Your task to perform on an android device: toggle wifi Image 0: 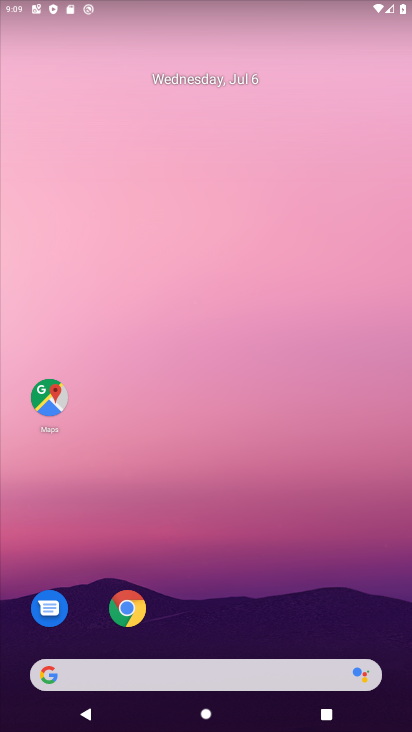
Step 0: drag from (233, 556) to (193, 238)
Your task to perform on an android device: toggle wifi Image 1: 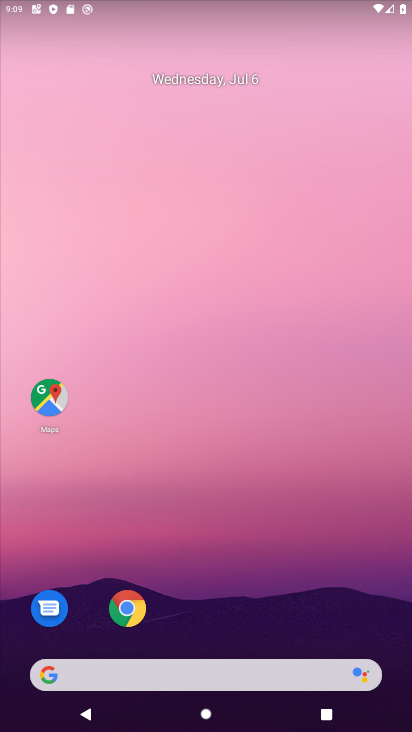
Step 1: drag from (220, 621) to (168, 236)
Your task to perform on an android device: toggle wifi Image 2: 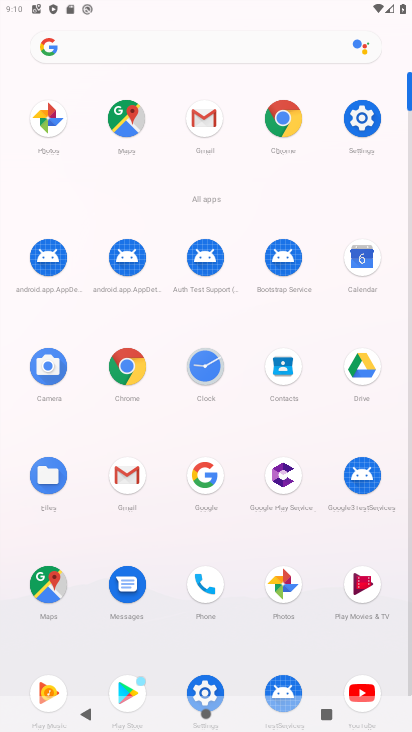
Step 2: click (359, 116)
Your task to perform on an android device: toggle wifi Image 3: 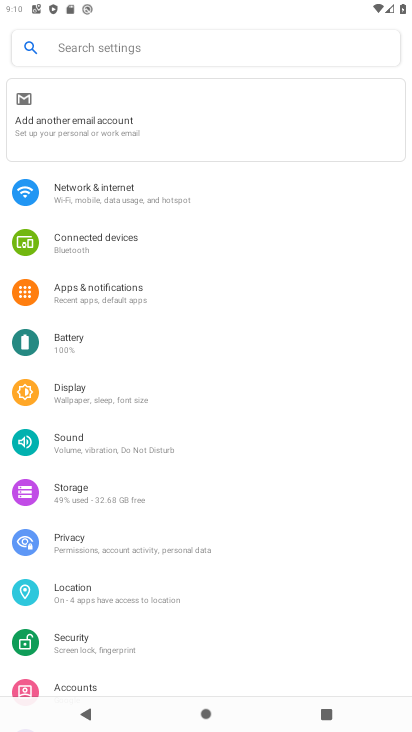
Step 3: click (112, 187)
Your task to perform on an android device: toggle wifi Image 4: 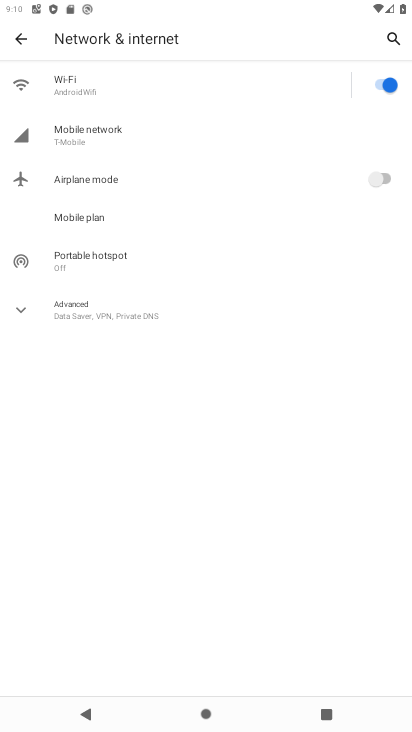
Step 4: click (380, 78)
Your task to perform on an android device: toggle wifi Image 5: 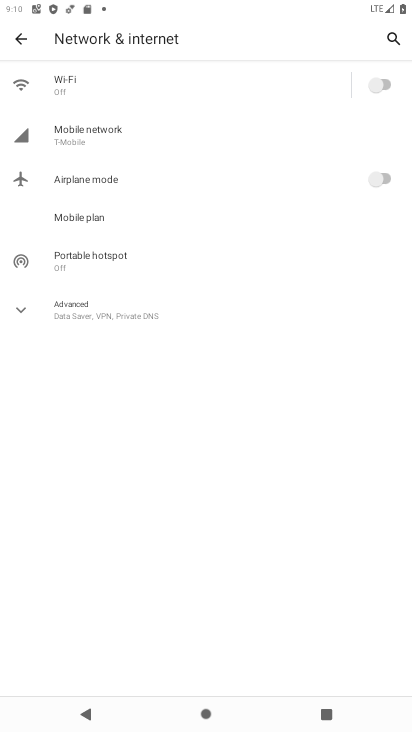
Step 5: task complete